Your task to perform on an android device: Find coffee shops on Maps Image 0: 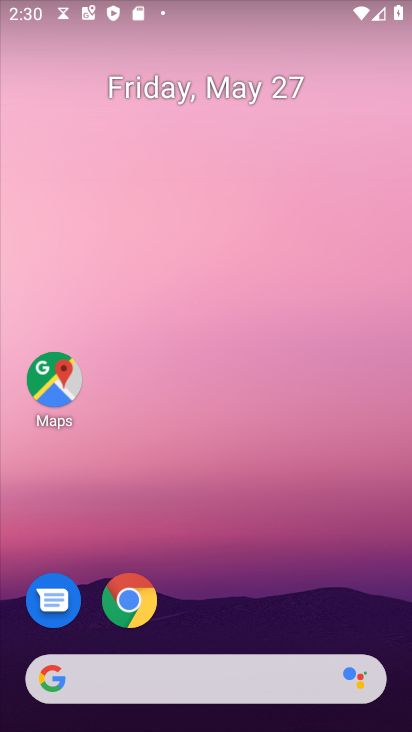
Step 0: drag from (278, 564) to (206, 17)
Your task to perform on an android device: Find coffee shops on Maps Image 1: 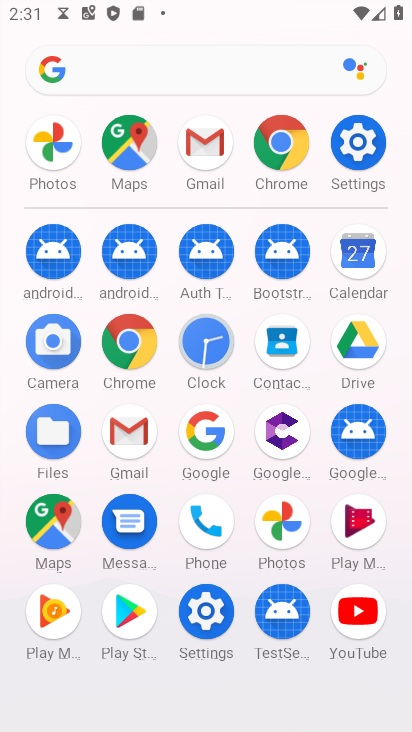
Step 1: click (54, 522)
Your task to perform on an android device: Find coffee shops on Maps Image 2: 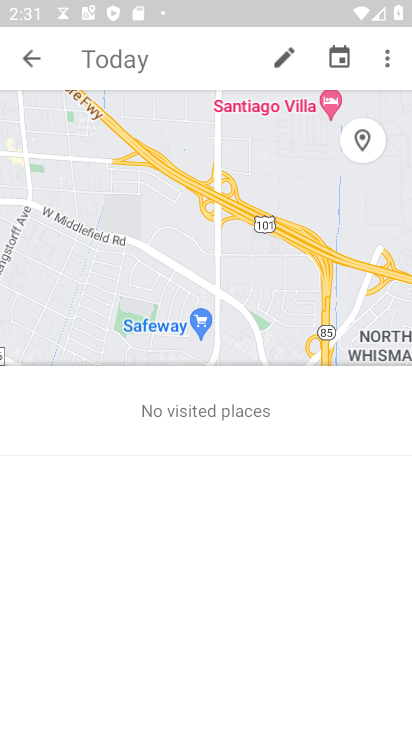
Step 2: click (44, 53)
Your task to perform on an android device: Find coffee shops on Maps Image 3: 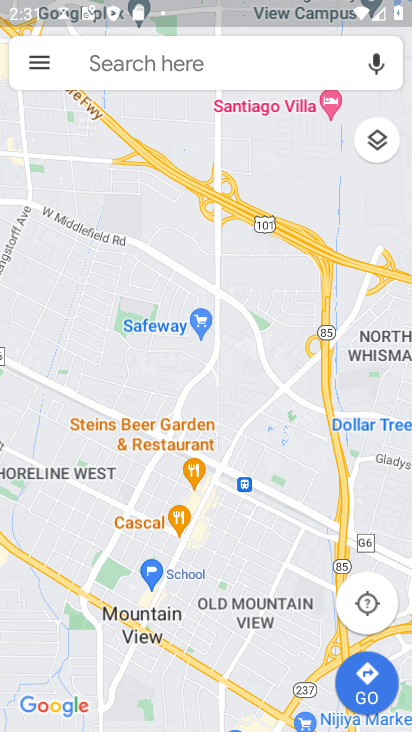
Step 3: click (232, 59)
Your task to perform on an android device: Find coffee shops on Maps Image 4: 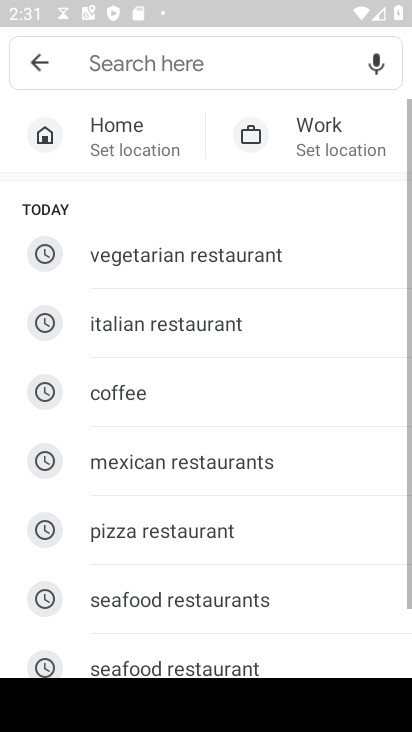
Step 4: click (189, 399)
Your task to perform on an android device: Find coffee shops on Maps Image 5: 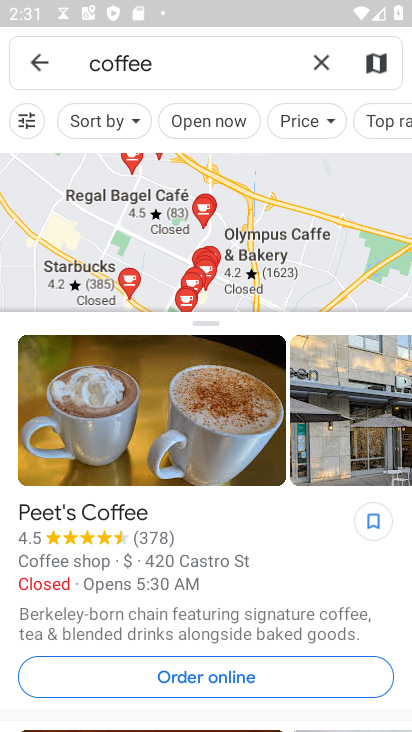
Step 5: task complete